Your task to perform on an android device: Open calendar and show me the third week of next month Image 0: 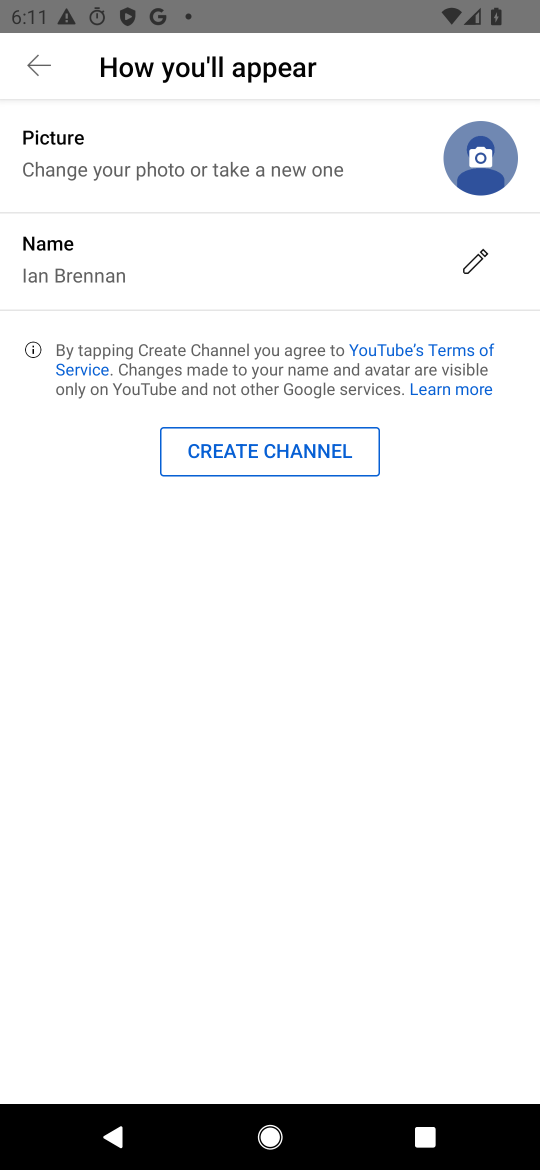
Step 0: press home button
Your task to perform on an android device: Open calendar and show me the third week of next month Image 1: 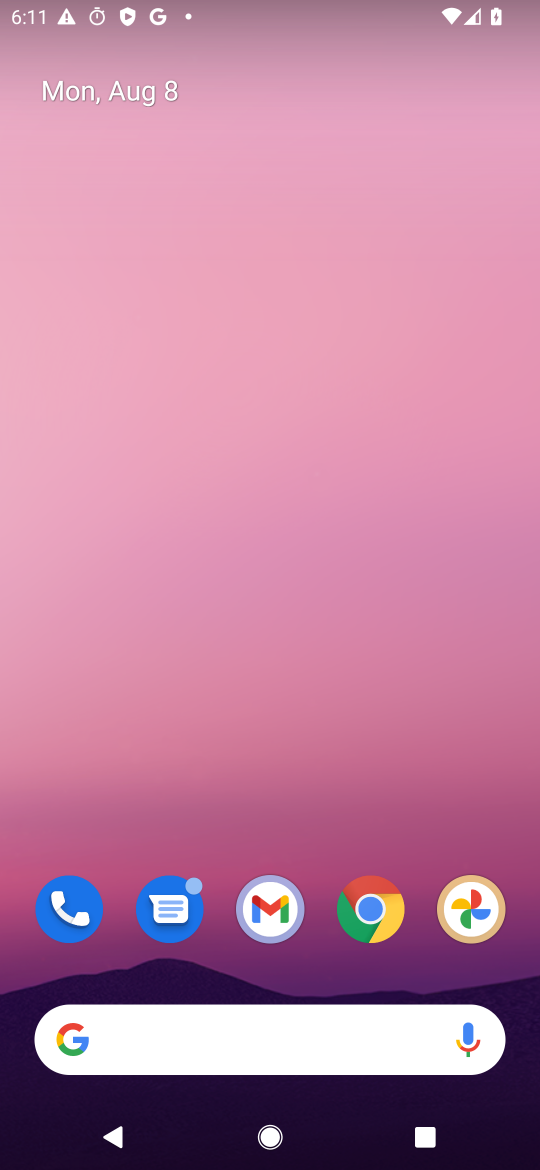
Step 1: drag from (173, 1040) to (324, 320)
Your task to perform on an android device: Open calendar and show me the third week of next month Image 2: 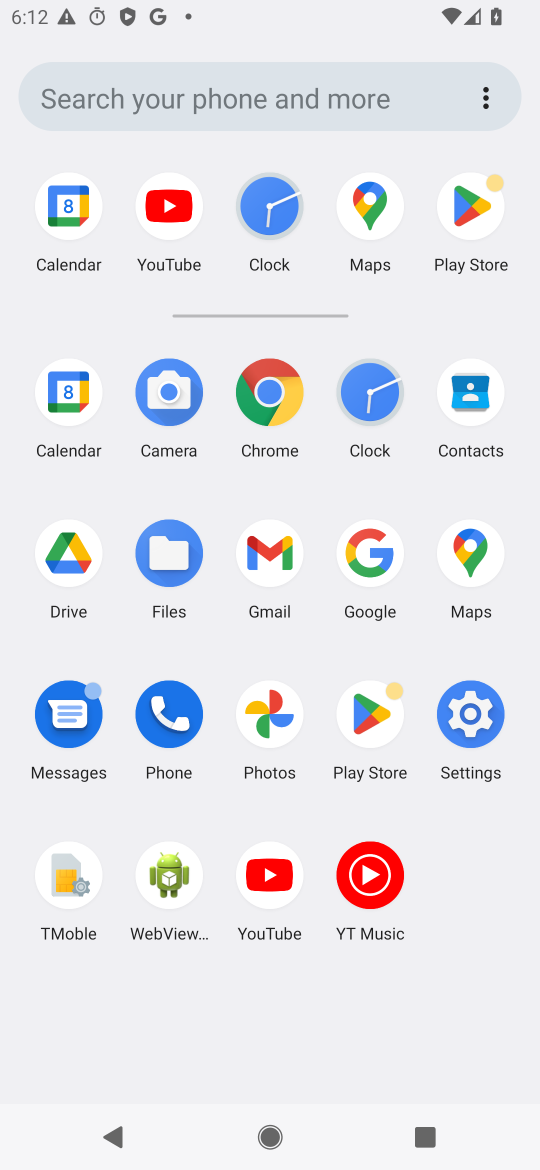
Step 2: click (74, 400)
Your task to perform on an android device: Open calendar and show me the third week of next month Image 3: 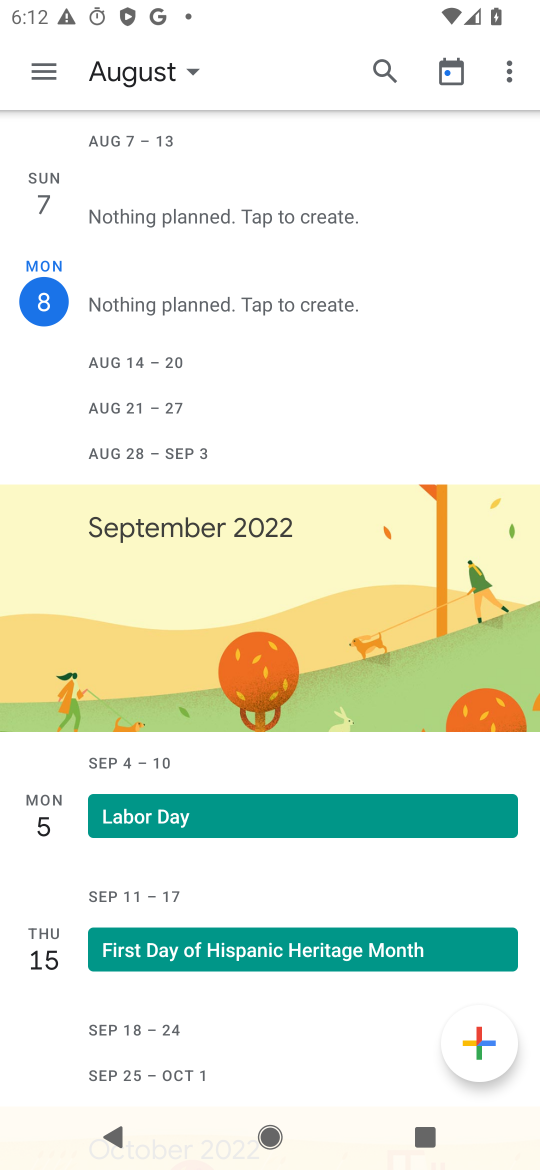
Step 3: click (144, 69)
Your task to perform on an android device: Open calendar and show me the third week of next month Image 4: 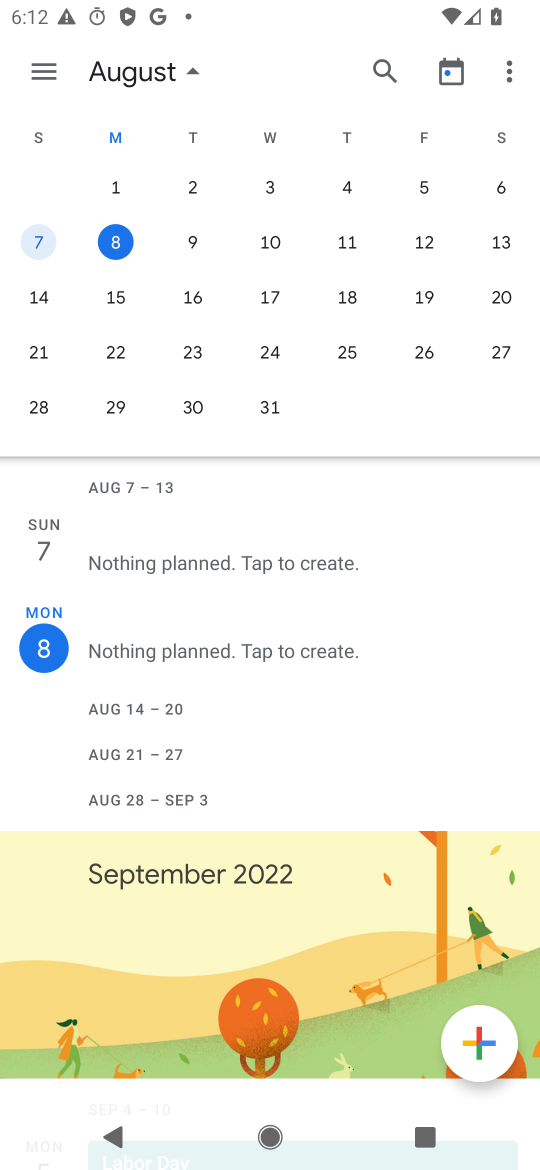
Step 4: drag from (464, 322) to (30, 308)
Your task to perform on an android device: Open calendar and show me the third week of next month Image 5: 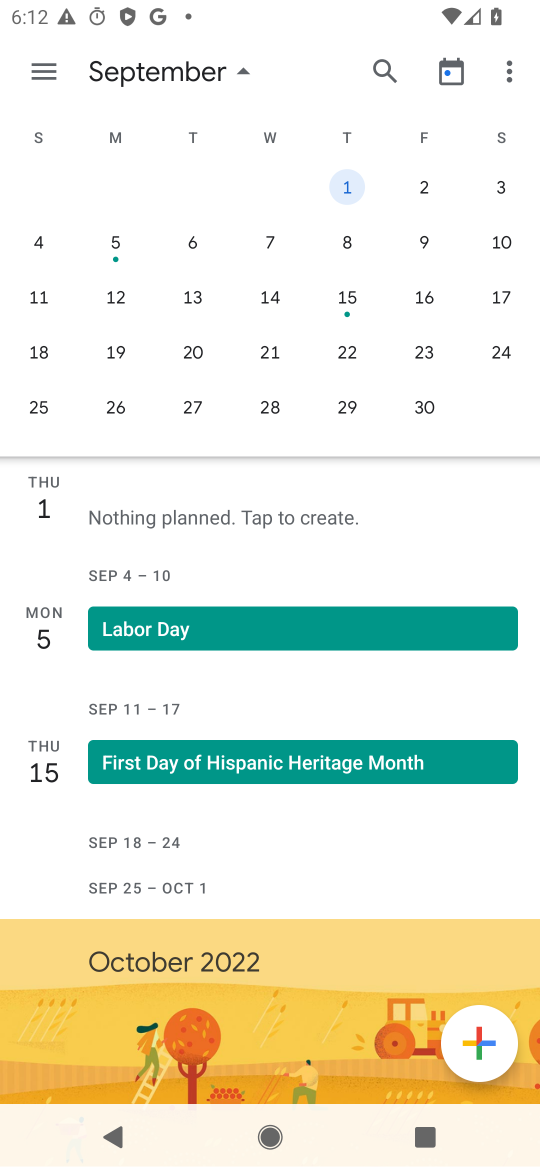
Step 5: click (41, 289)
Your task to perform on an android device: Open calendar and show me the third week of next month Image 6: 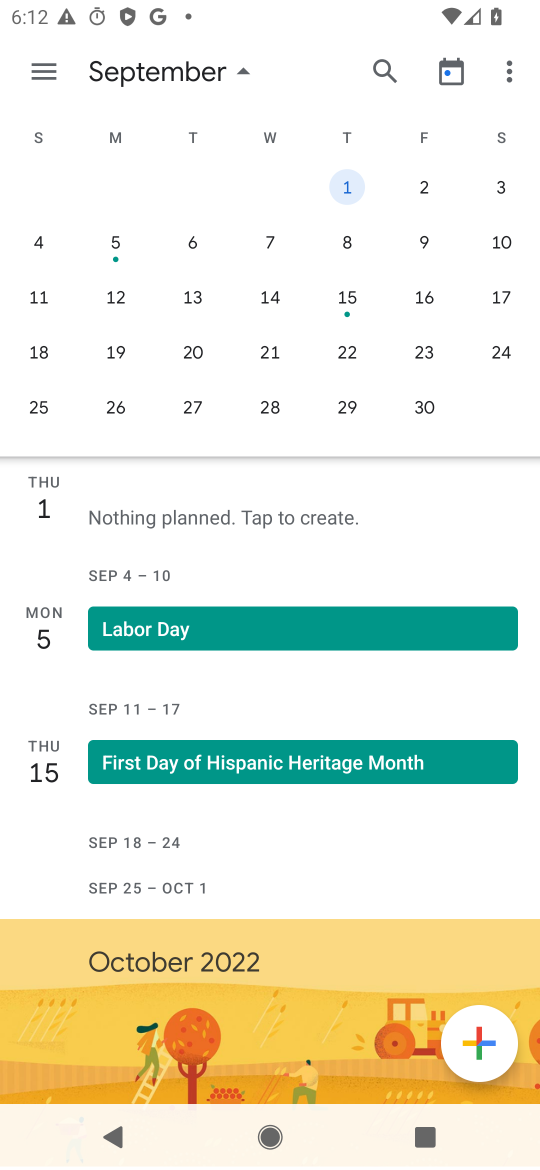
Step 6: click (49, 300)
Your task to perform on an android device: Open calendar and show me the third week of next month Image 7: 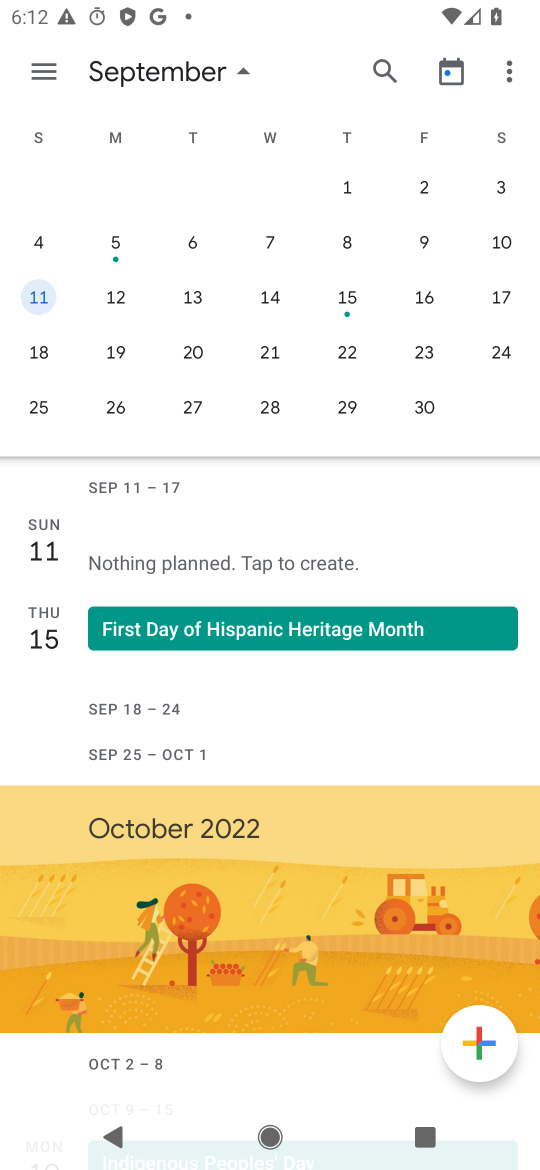
Step 7: click (35, 65)
Your task to perform on an android device: Open calendar and show me the third week of next month Image 8: 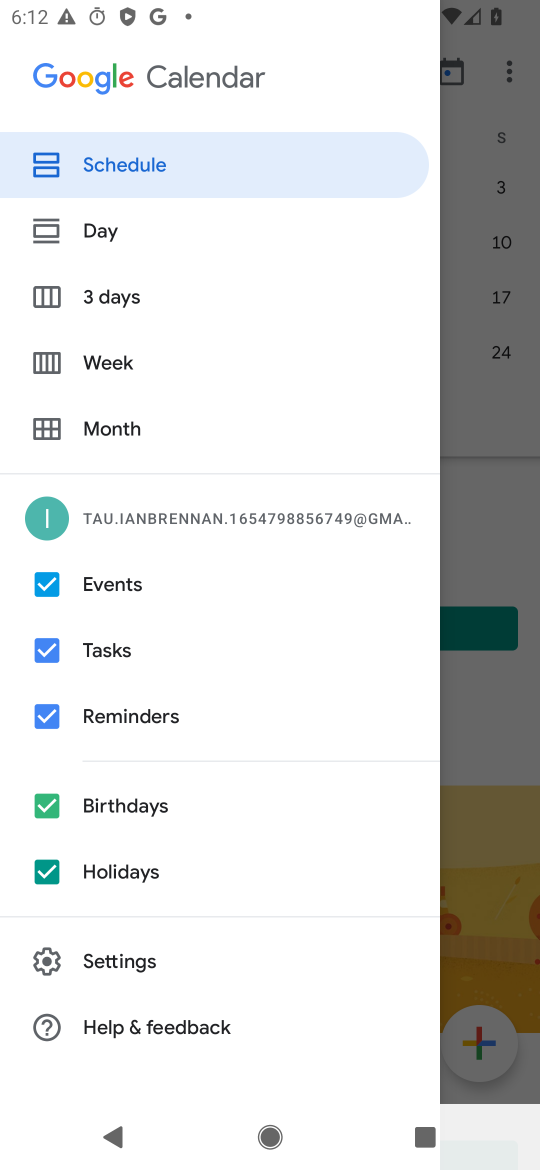
Step 8: click (138, 362)
Your task to perform on an android device: Open calendar and show me the third week of next month Image 9: 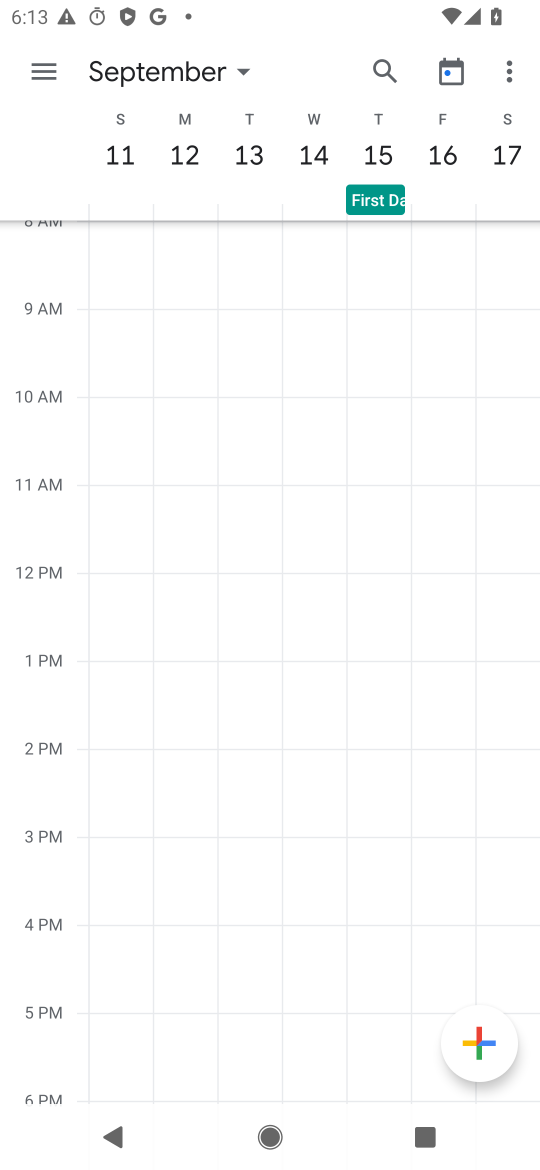
Step 9: task complete